Your task to perform on an android device: turn off priority inbox in the gmail app Image 0: 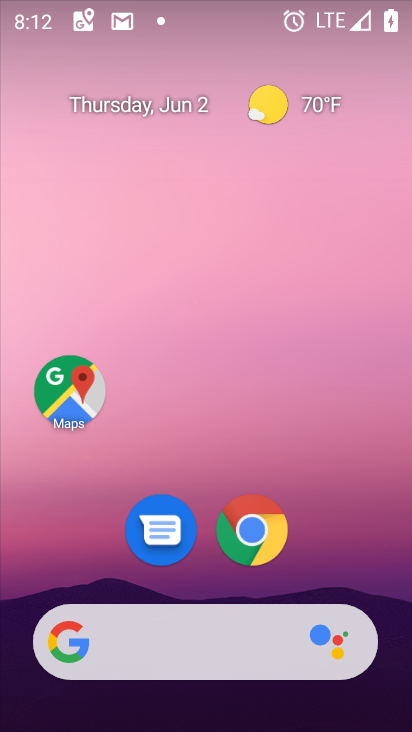
Step 0: drag from (179, 610) to (186, 237)
Your task to perform on an android device: turn off priority inbox in the gmail app Image 1: 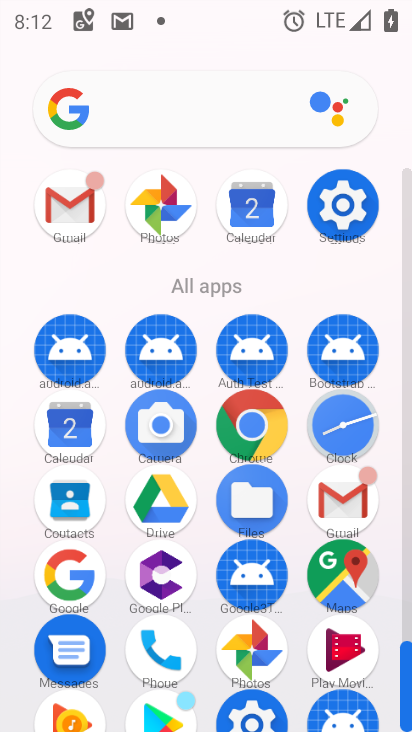
Step 1: click (74, 203)
Your task to perform on an android device: turn off priority inbox in the gmail app Image 2: 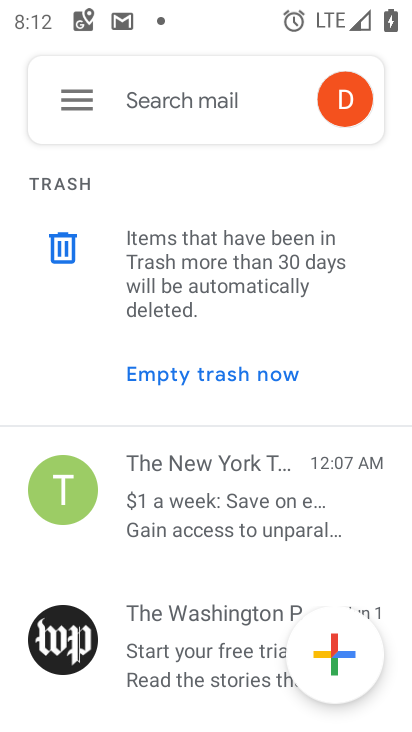
Step 2: click (65, 100)
Your task to perform on an android device: turn off priority inbox in the gmail app Image 3: 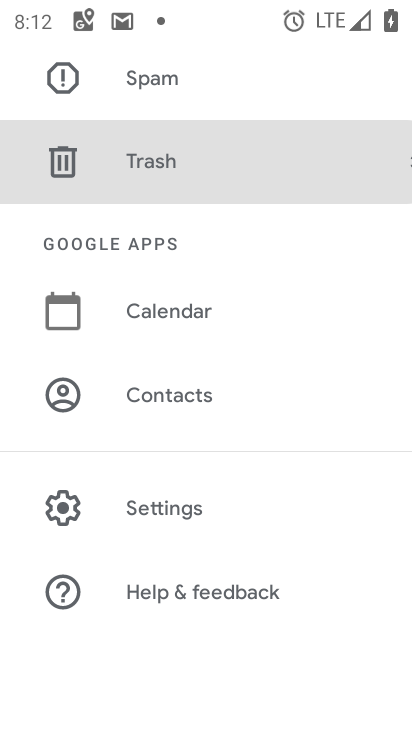
Step 3: click (178, 505)
Your task to perform on an android device: turn off priority inbox in the gmail app Image 4: 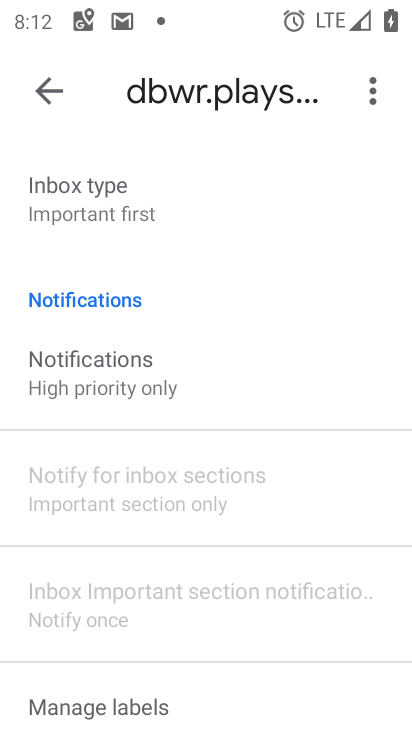
Step 4: task complete